Your task to perform on an android device: see tabs open on other devices in the chrome app Image 0: 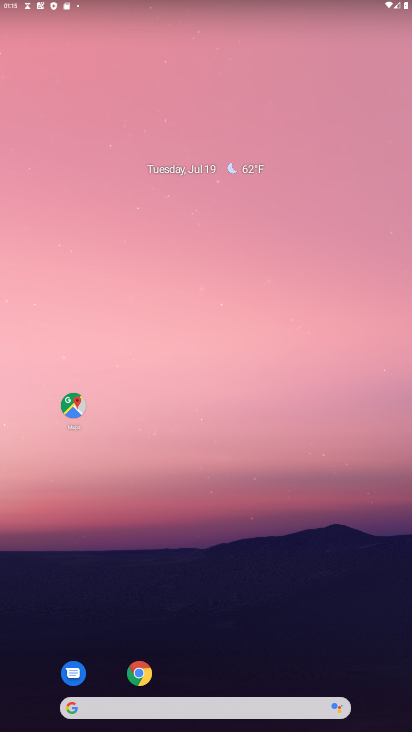
Step 0: drag from (269, 613) to (262, 67)
Your task to perform on an android device: see tabs open on other devices in the chrome app Image 1: 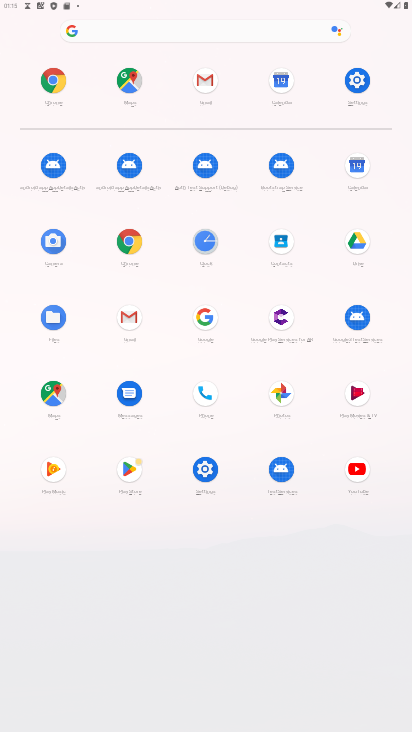
Step 1: click (46, 84)
Your task to perform on an android device: see tabs open on other devices in the chrome app Image 2: 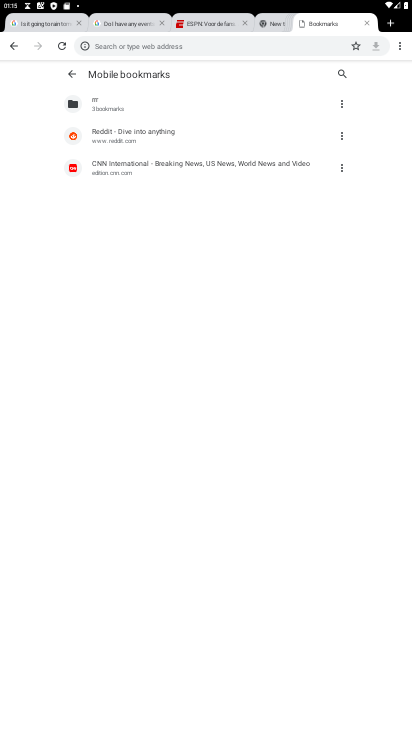
Step 2: click (405, 42)
Your task to perform on an android device: see tabs open on other devices in the chrome app Image 3: 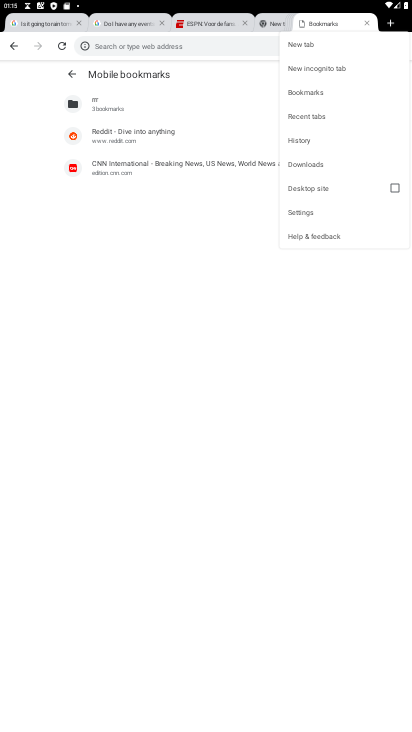
Step 3: click (310, 87)
Your task to perform on an android device: see tabs open on other devices in the chrome app Image 4: 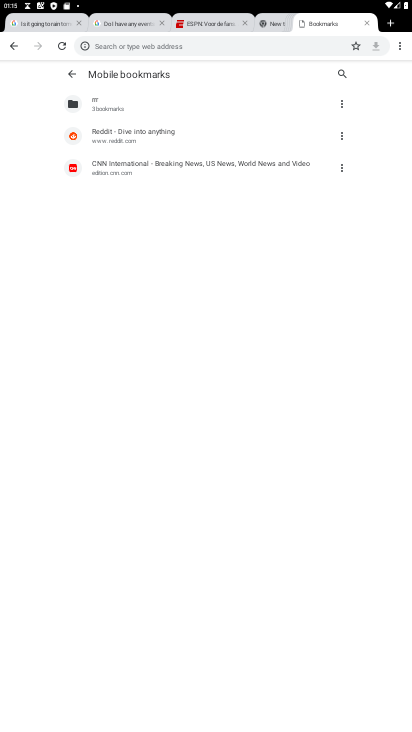
Step 4: task complete